Your task to perform on an android device: turn notification dots on Image 0: 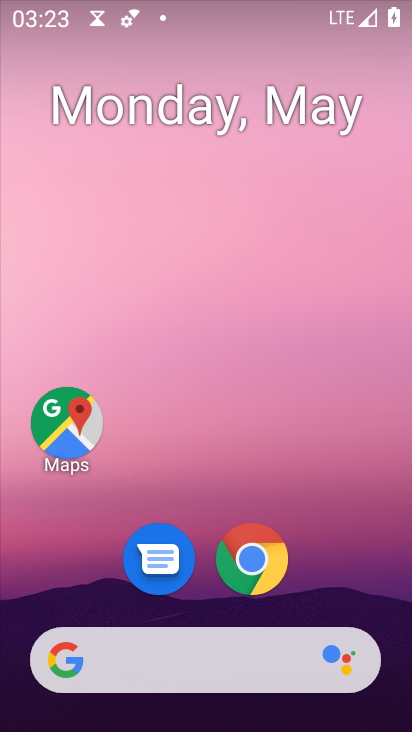
Step 0: drag from (302, 545) to (293, 238)
Your task to perform on an android device: turn notification dots on Image 1: 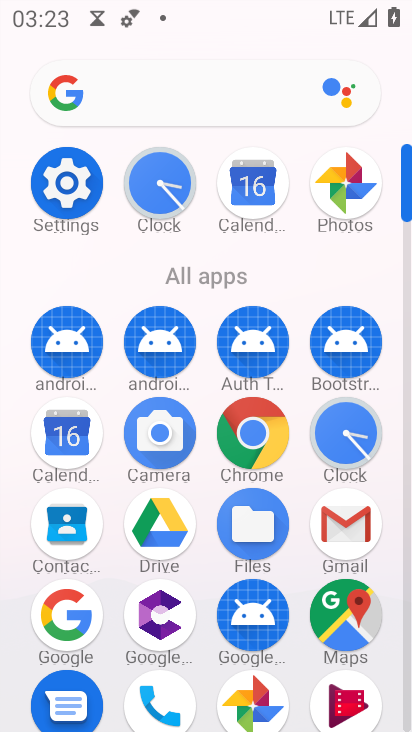
Step 1: click (42, 186)
Your task to perform on an android device: turn notification dots on Image 2: 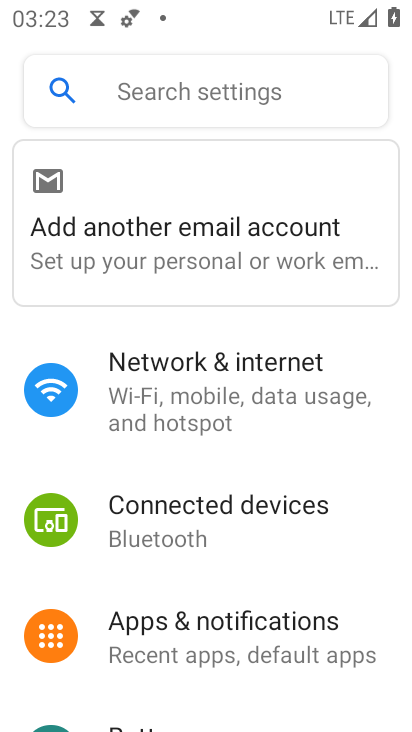
Step 2: click (234, 83)
Your task to perform on an android device: turn notification dots on Image 3: 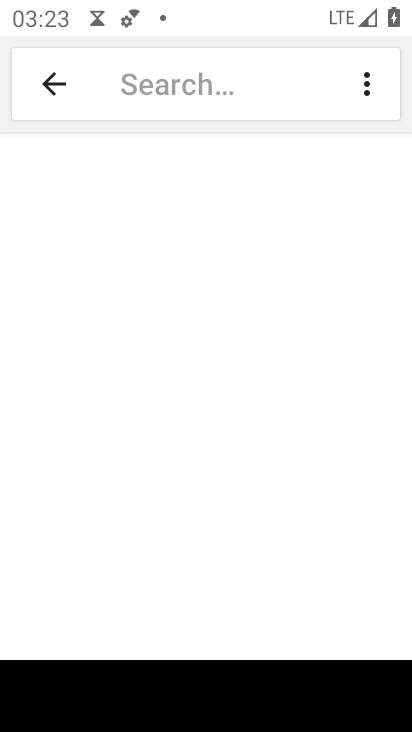
Step 3: click (236, 84)
Your task to perform on an android device: turn notification dots on Image 4: 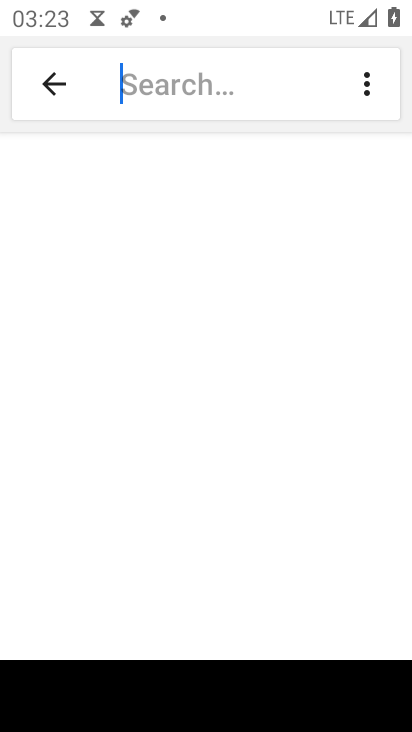
Step 4: type "notification dots "
Your task to perform on an android device: turn notification dots on Image 5: 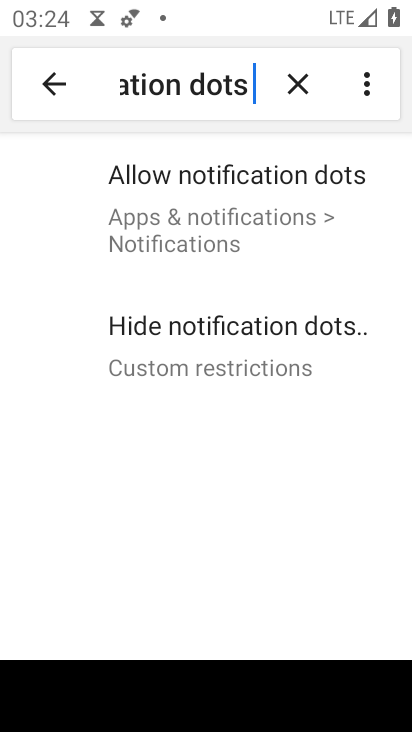
Step 5: click (214, 219)
Your task to perform on an android device: turn notification dots on Image 6: 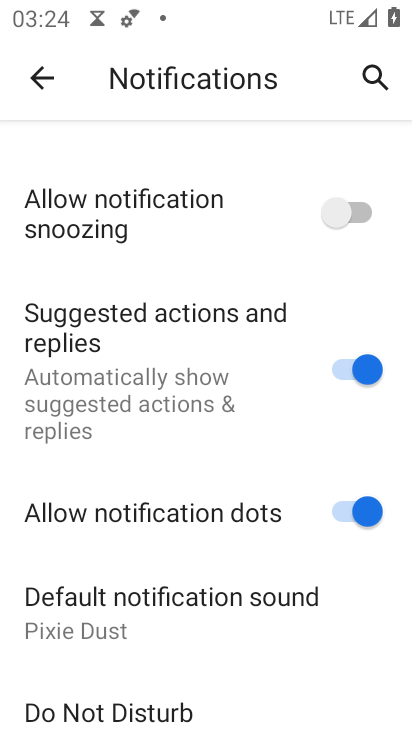
Step 6: task complete